Your task to perform on an android device: set default search engine in the chrome app Image 0: 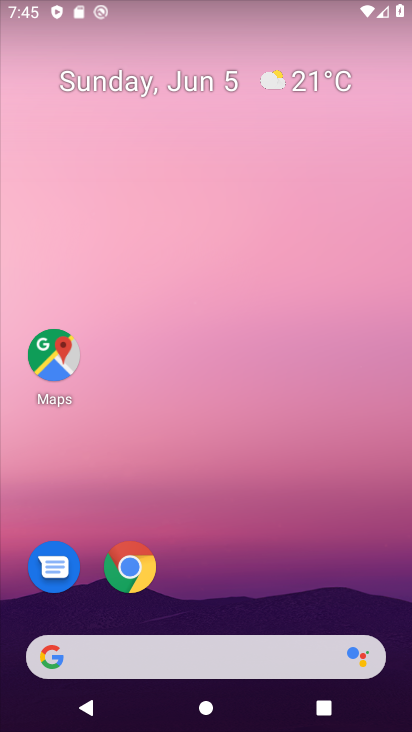
Step 0: click (130, 577)
Your task to perform on an android device: set default search engine in the chrome app Image 1: 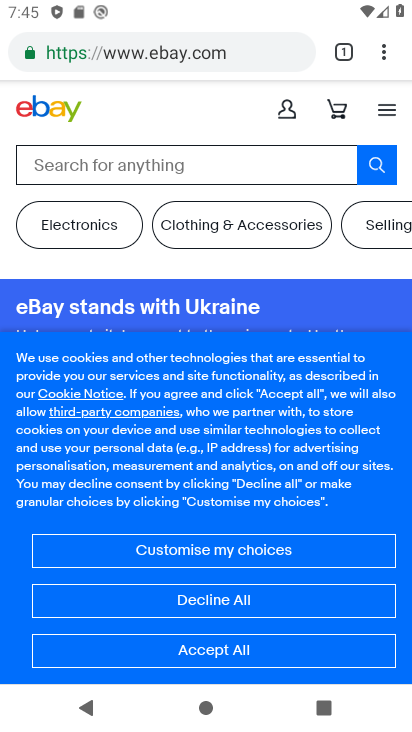
Step 1: click (383, 52)
Your task to perform on an android device: set default search engine in the chrome app Image 2: 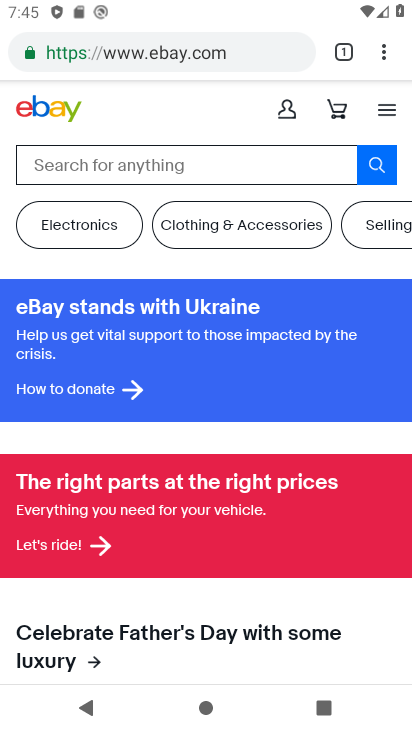
Step 2: click (386, 53)
Your task to perform on an android device: set default search engine in the chrome app Image 3: 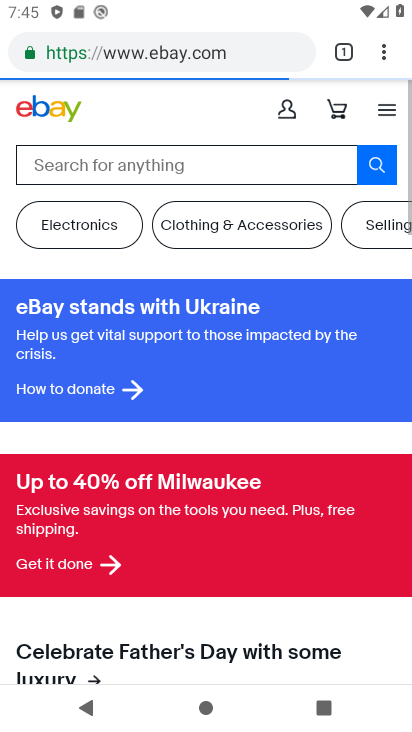
Step 3: click (379, 52)
Your task to perform on an android device: set default search engine in the chrome app Image 4: 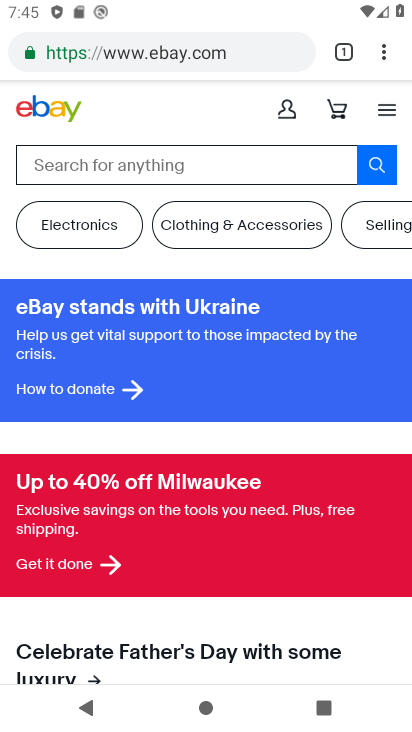
Step 4: click (380, 58)
Your task to perform on an android device: set default search engine in the chrome app Image 5: 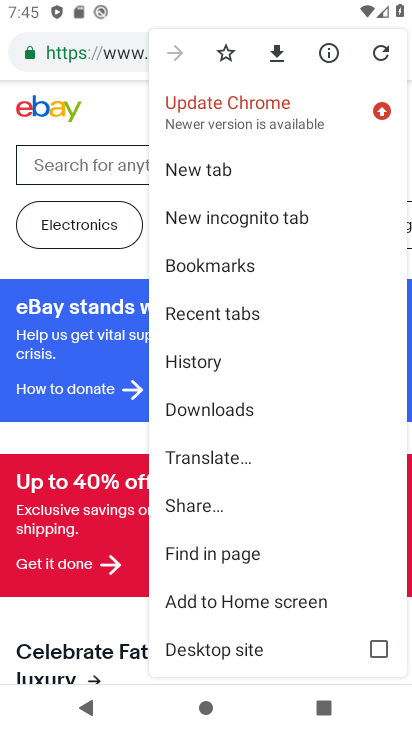
Step 5: drag from (256, 656) to (242, 447)
Your task to perform on an android device: set default search engine in the chrome app Image 6: 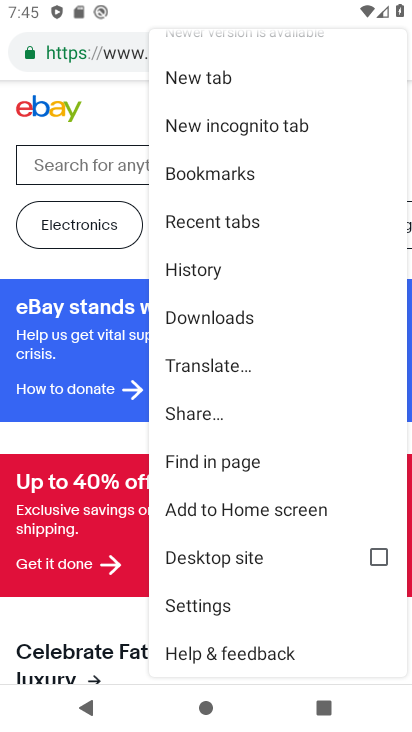
Step 6: click (203, 604)
Your task to perform on an android device: set default search engine in the chrome app Image 7: 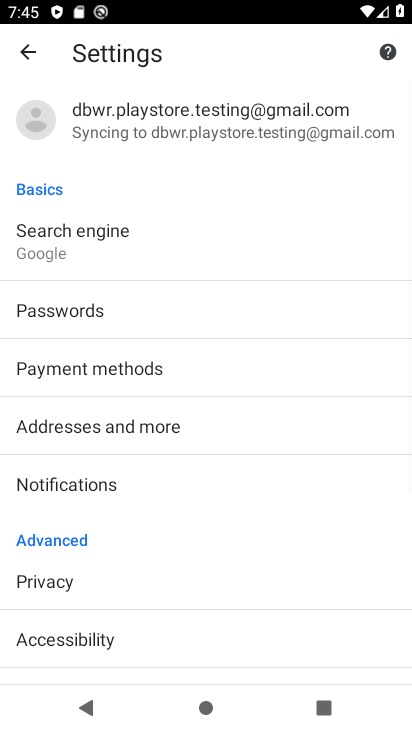
Step 7: click (66, 235)
Your task to perform on an android device: set default search engine in the chrome app Image 8: 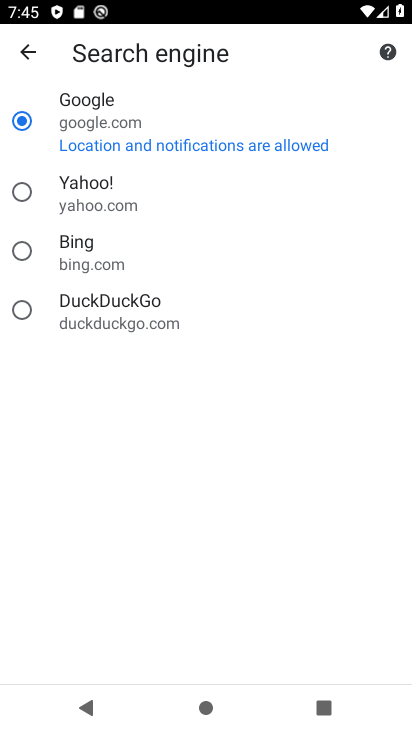
Step 8: task complete